Your task to perform on an android device: Open Reddit.com Image 0: 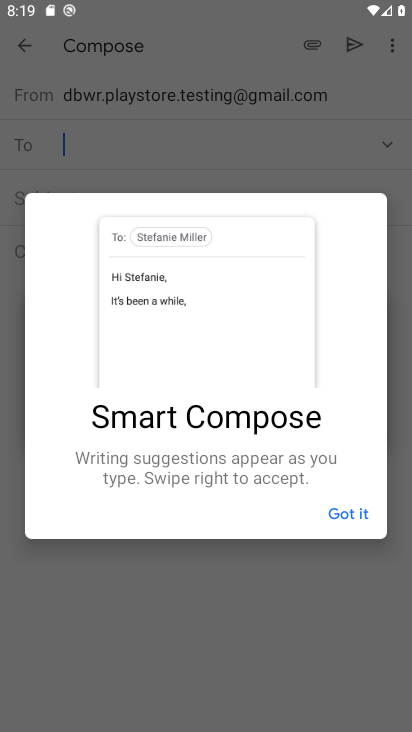
Step 0: press home button
Your task to perform on an android device: Open Reddit.com Image 1: 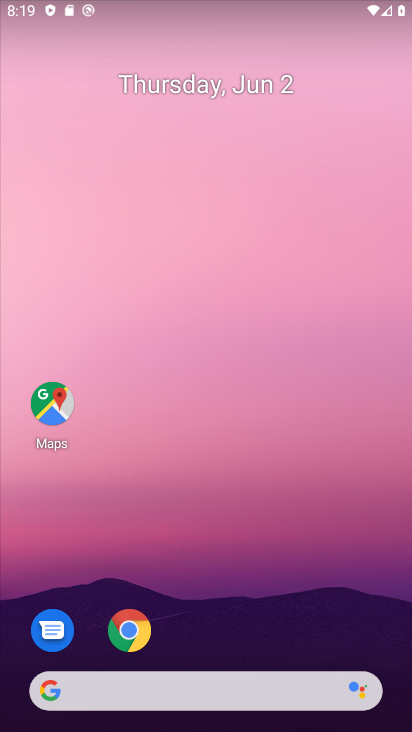
Step 1: click (138, 640)
Your task to perform on an android device: Open Reddit.com Image 2: 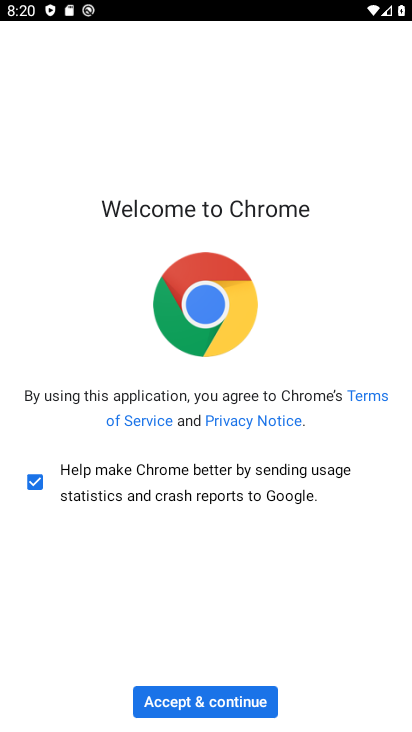
Step 2: click (199, 701)
Your task to perform on an android device: Open Reddit.com Image 3: 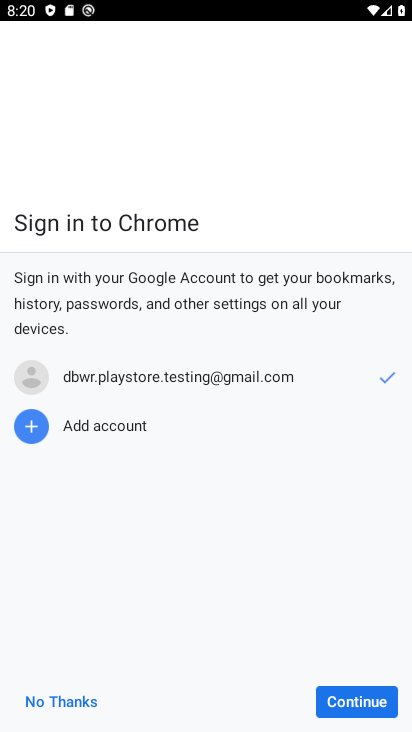
Step 3: click (342, 699)
Your task to perform on an android device: Open Reddit.com Image 4: 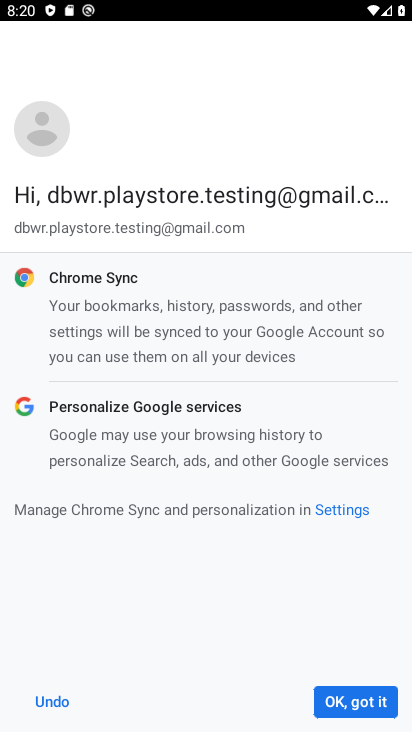
Step 4: click (342, 699)
Your task to perform on an android device: Open Reddit.com Image 5: 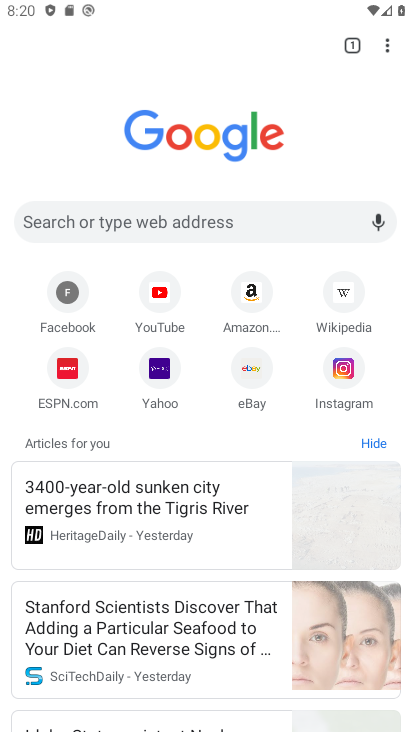
Step 5: click (214, 220)
Your task to perform on an android device: Open Reddit.com Image 6: 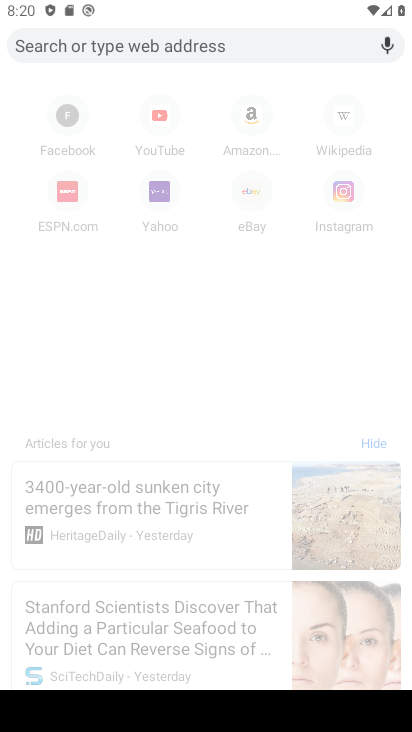
Step 6: type "Reddit.com"
Your task to perform on an android device: Open Reddit.com Image 7: 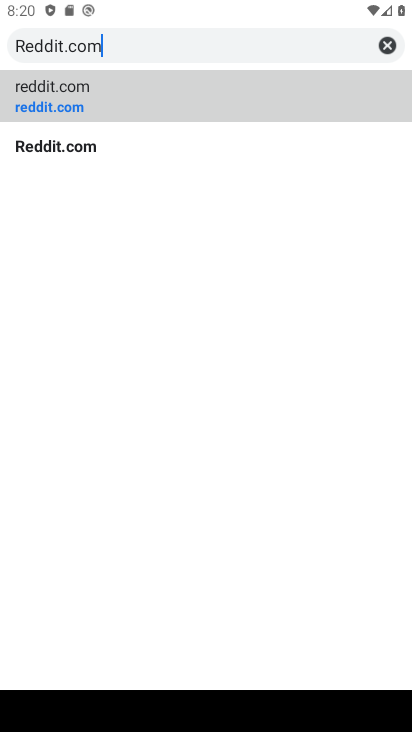
Step 7: click (122, 99)
Your task to perform on an android device: Open Reddit.com Image 8: 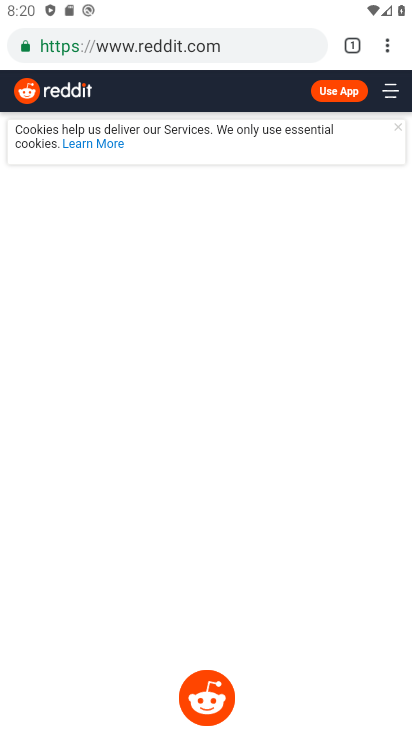
Step 8: task complete